Your task to perform on an android device: open chrome and create a bookmark for the current page Image 0: 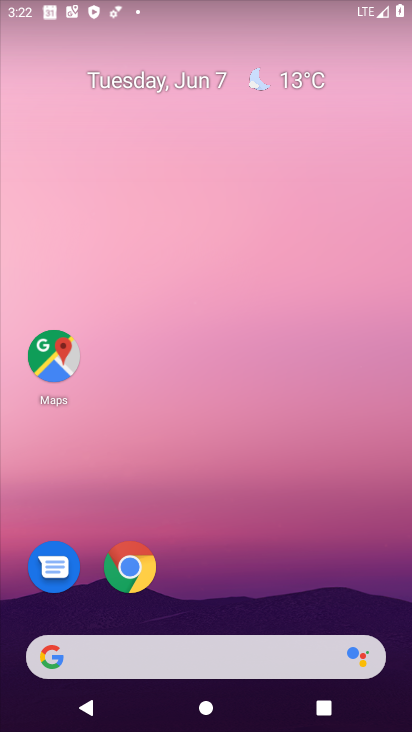
Step 0: click (129, 569)
Your task to perform on an android device: open chrome and create a bookmark for the current page Image 1: 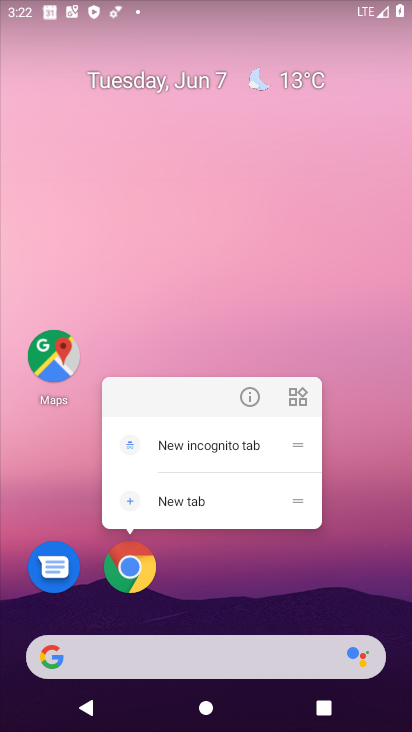
Step 1: click (118, 552)
Your task to perform on an android device: open chrome and create a bookmark for the current page Image 2: 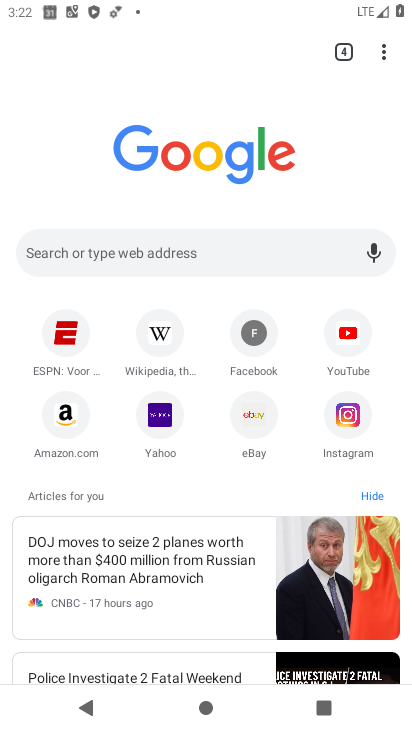
Step 2: task complete